Your task to perform on an android device: delete the emails in spam in the gmail app Image 0: 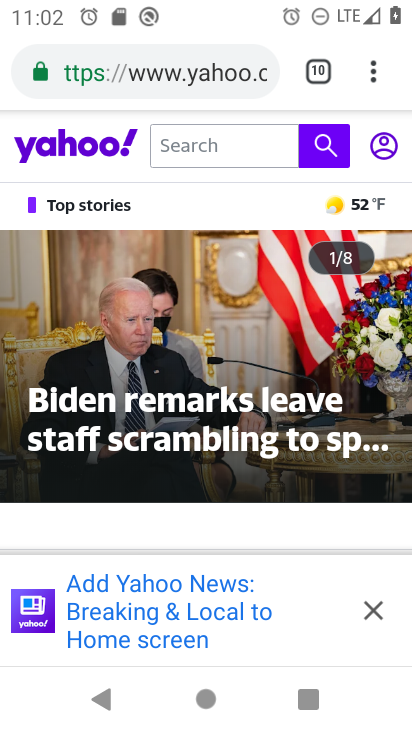
Step 0: press home button
Your task to perform on an android device: delete the emails in spam in the gmail app Image 1: 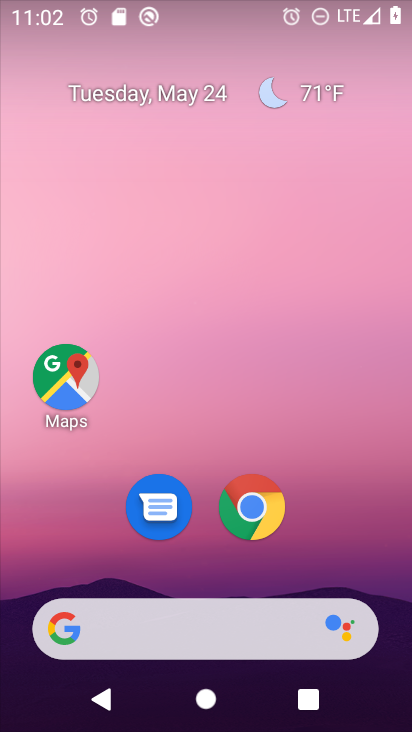
Step 1: drag from (223, 724) to (182, 117)
Your task to perform on an android device: delete the emails in spam in the gmail app Image 2: 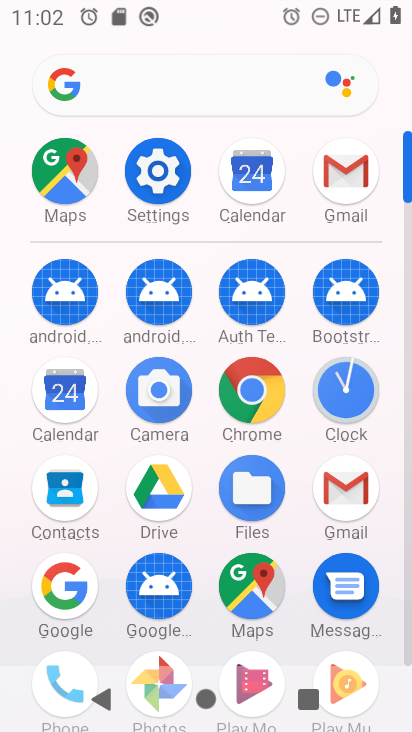
Step 2: click (353, 497)
Your task to perform on an android device: delete the emails in spam in the gmail app Image 3: 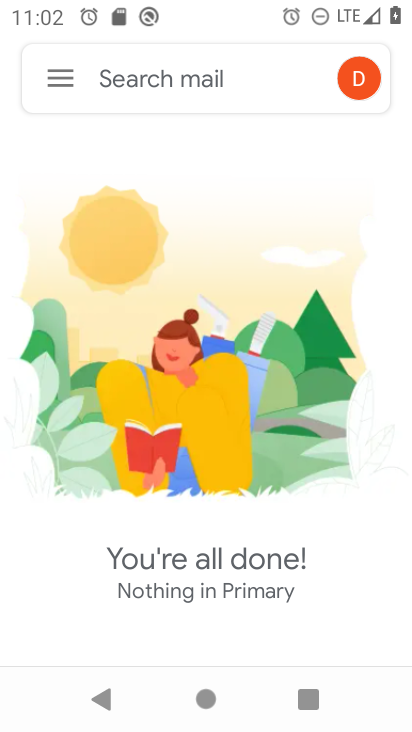
Step 3: click (61, 72)
Your task to perform on an android device: delete the emails in spam in the gmail app Image 4: 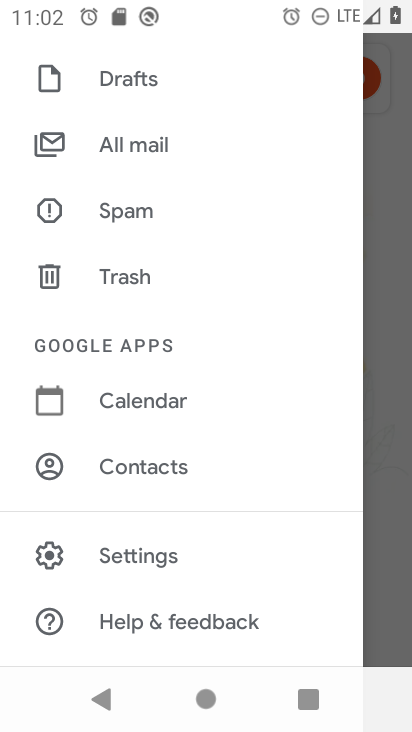
Step 4: click (111, 207)
Your task to perform on an android device: delete the emails in spam in the gmail app Image 5: 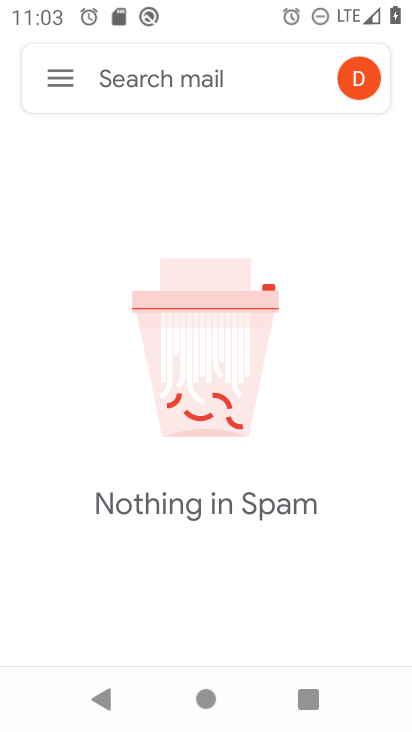
Step 5: task complete